Your task to perform on an android device: change keyboard looks Image 0: 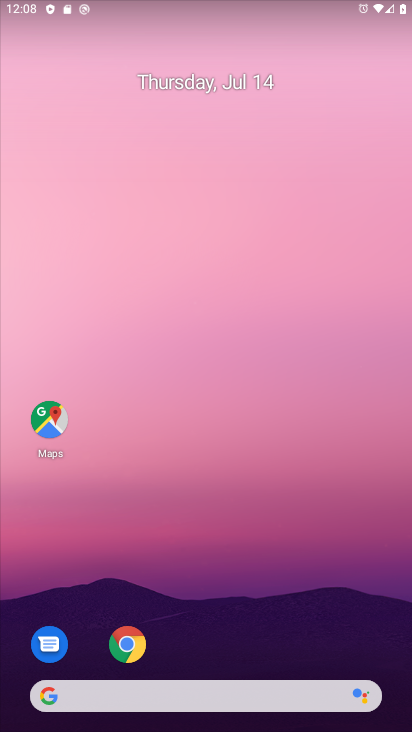
Step 0: drag from (186, 679) to (190, 174)
Your task to perform on an android device: change keyboard looks Image 1: 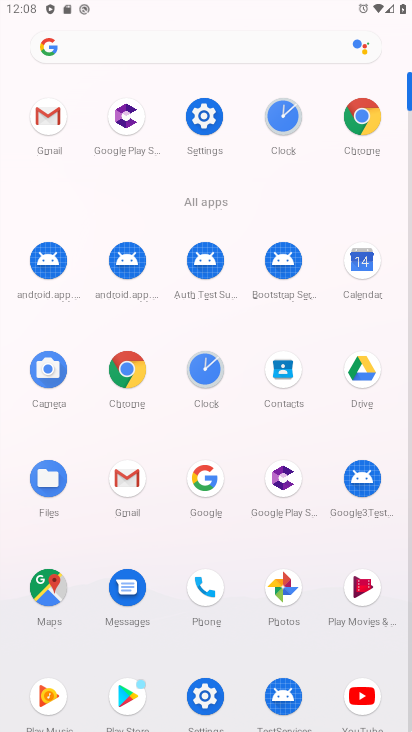
Step 1: click (200, 132)
Your task to perform on an android device: change keyboard looks Image 2: 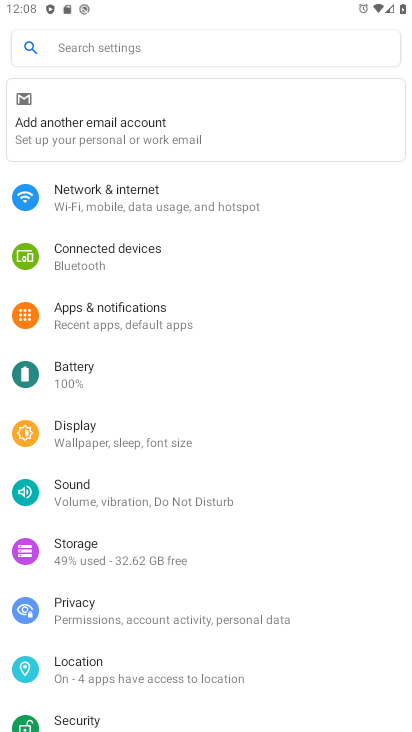
Step 2: drag from (170, 625) to (143, 240)
Your task to perform on an android device: change keyboard looks Image 3: 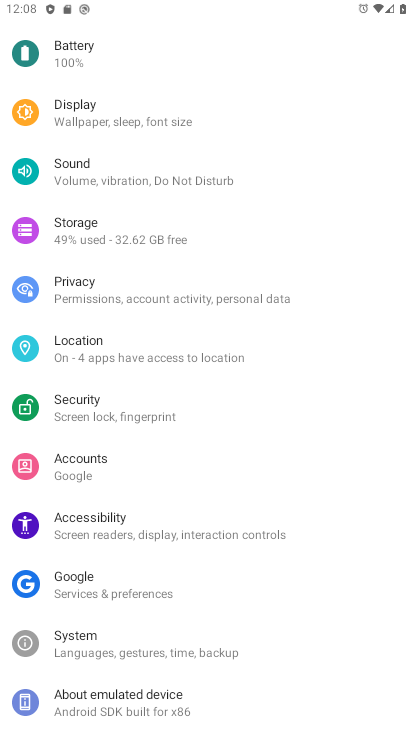
Step 3: click (143, 631)
Your task to perform on an android device: change keyboard looks Image 4: 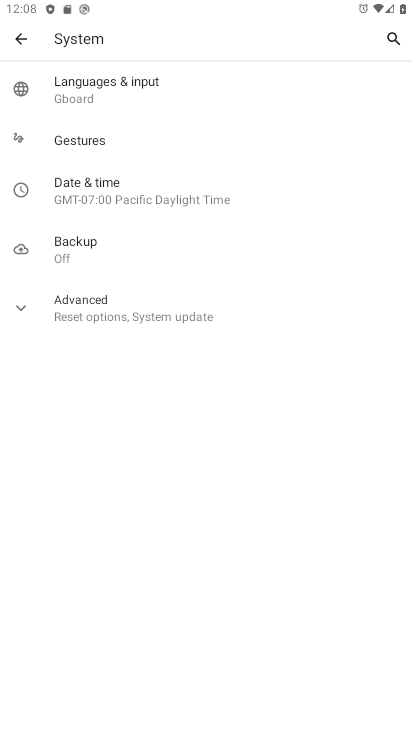
Step 4: click (73, 88)
Your task to perform on an android device: change keyboard looks Image 5: 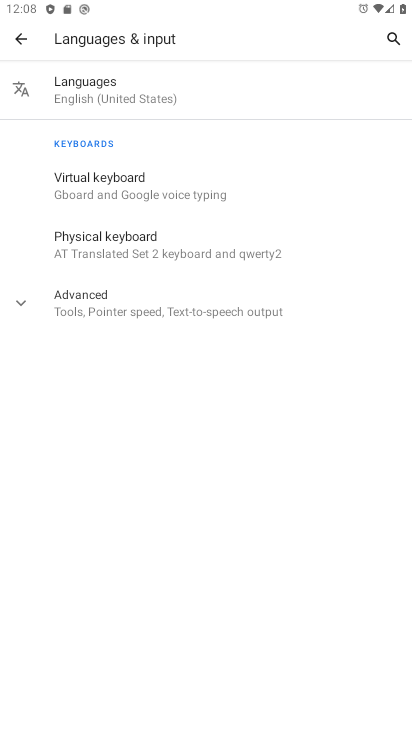
Step 5: click (86, 176)
Your task to perform on an android device: change keyboard looks Image 6: 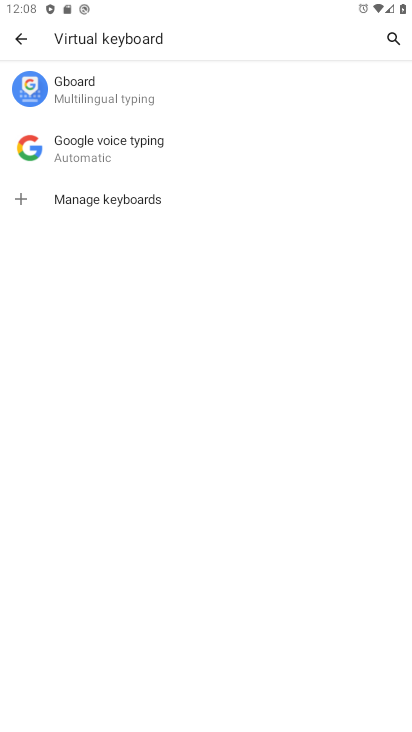
Step 6: click (88, 85)
Your task to perform on an android device: change keyboard looks Image 7: 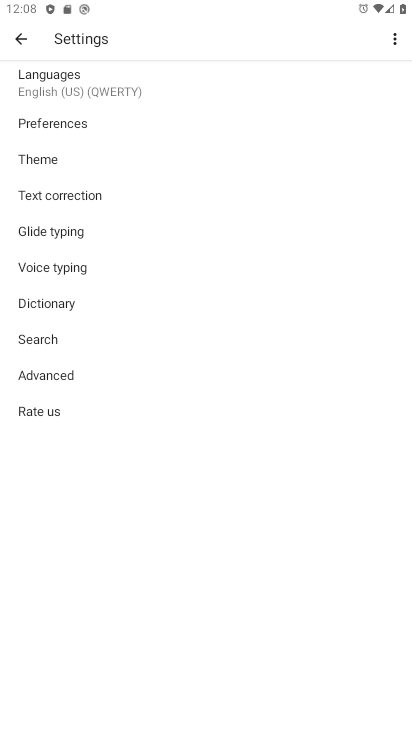
Step 7: click (44, 154)
Your task to perform on an android device: change keyboard looks Image 8: 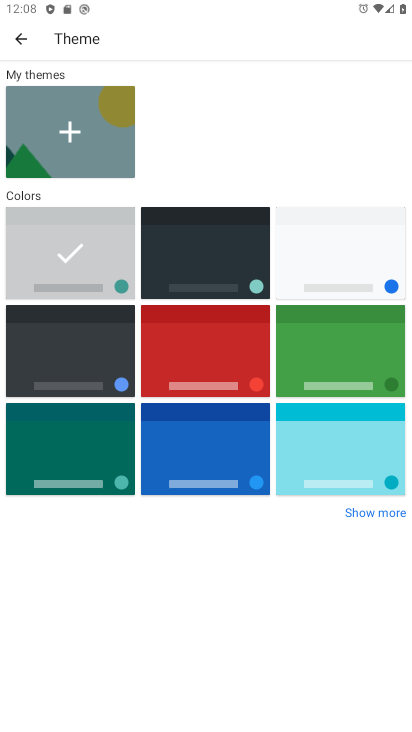
Step 8: click (237, 235)
Your task to perform on an android device: change keyboard looks Image 9: 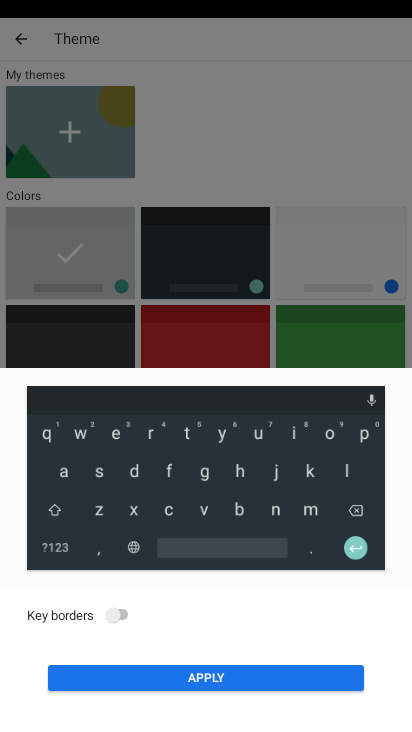
Step 9: click (170, 672)
Your task to perform on an android device: change keyboard looks Image 10: 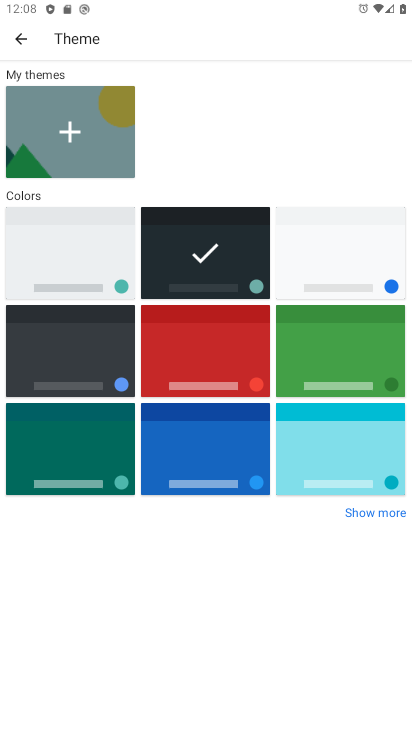
Step 10: task complete